Your task to perform on an android device: Search for pizza restaurants on Maps Image 0: 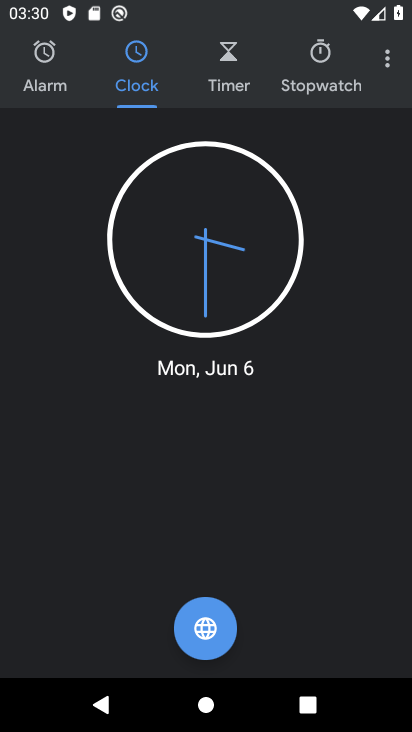
Step 0: press home button
Your task to perform on an android device: Search for pizza restaurants on Maps Image 1: 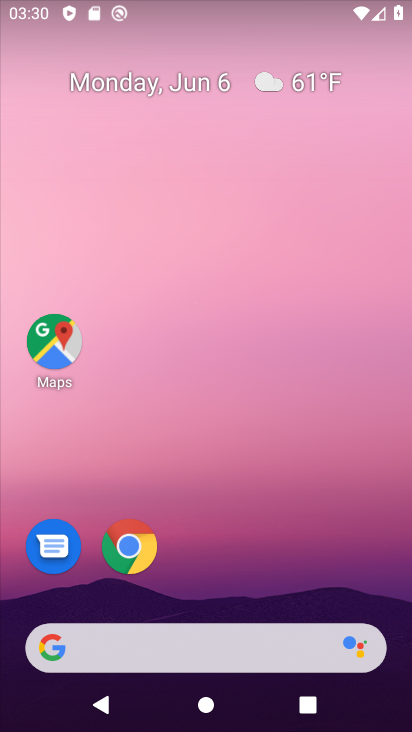
Step 1: click (55, 342)
Your task to perform on an android device: Search for pizza restaurants on Maps Image 2: 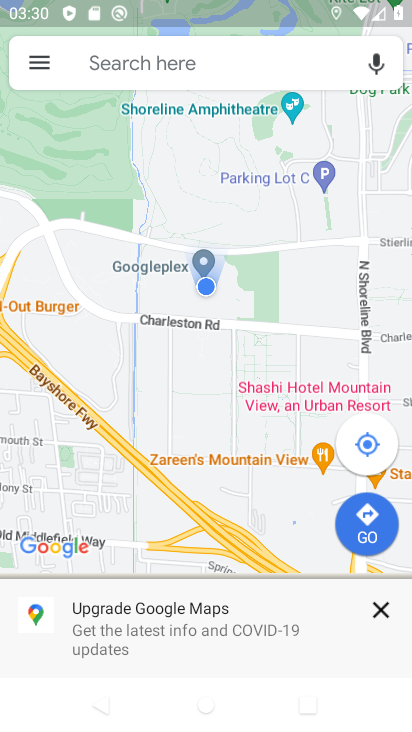
Step 2: click (185, 64)
Your task to perform on an android device: Search for pizza restaurants on Maps Image 3: 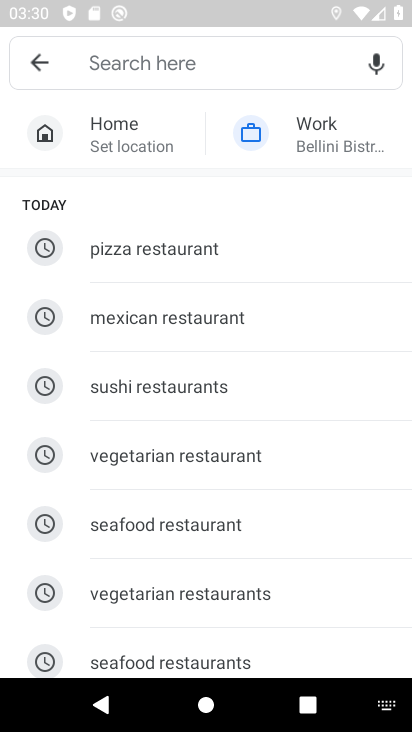
Step 3: click (169, 247)
Your task to perform on an android device: Search for pizza restaurants on Maps Image 4: 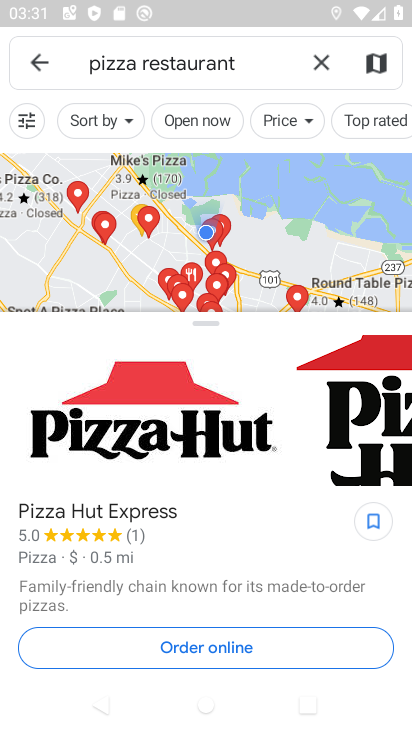
Step 4: task complete